Your task to perform on an android device: Add logitech g pro to the cart on target.com Image 0: 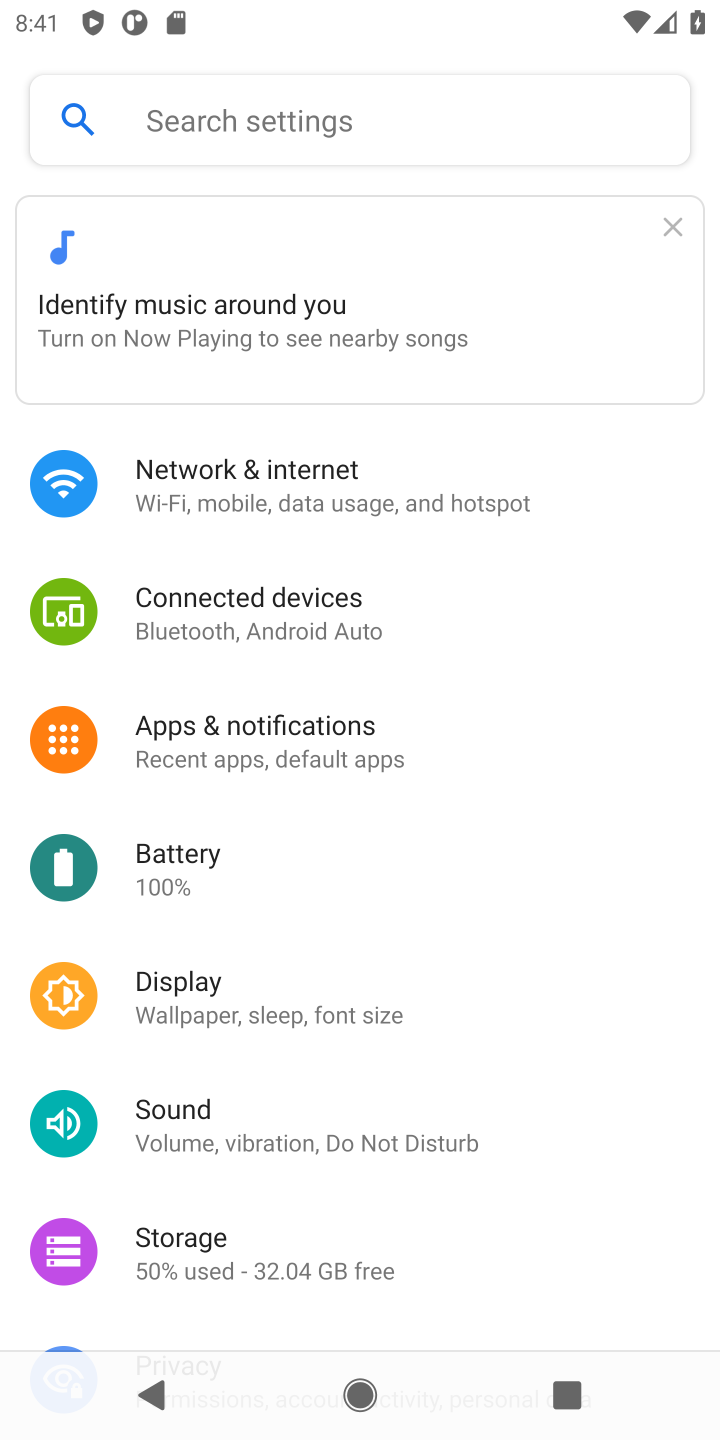
Step 0: press home button
Your task to perform on an android device: Add logitech g pro to the cart on target.com Image 1: 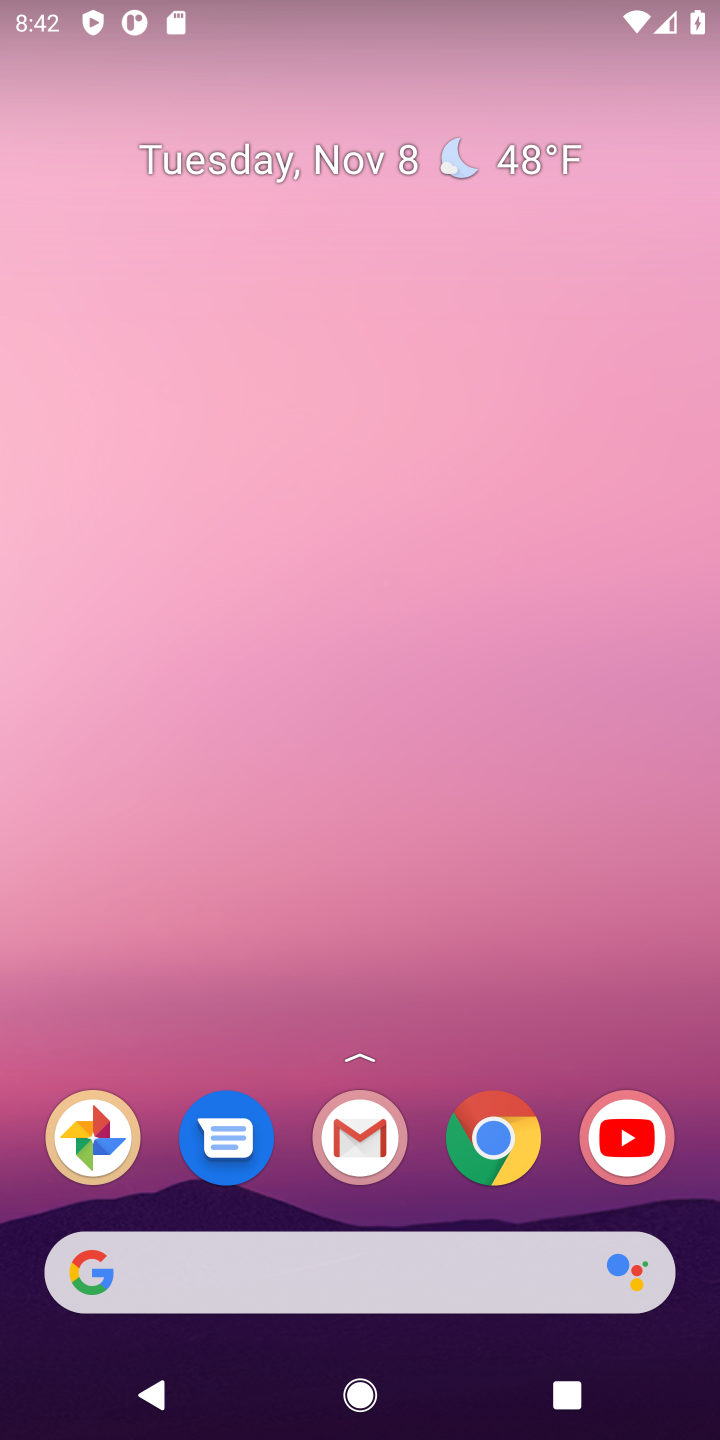
Step 1: click (507, 1127)
Your task to perform on an android device: Add logitech g pro to the cart on target.com Image 2: 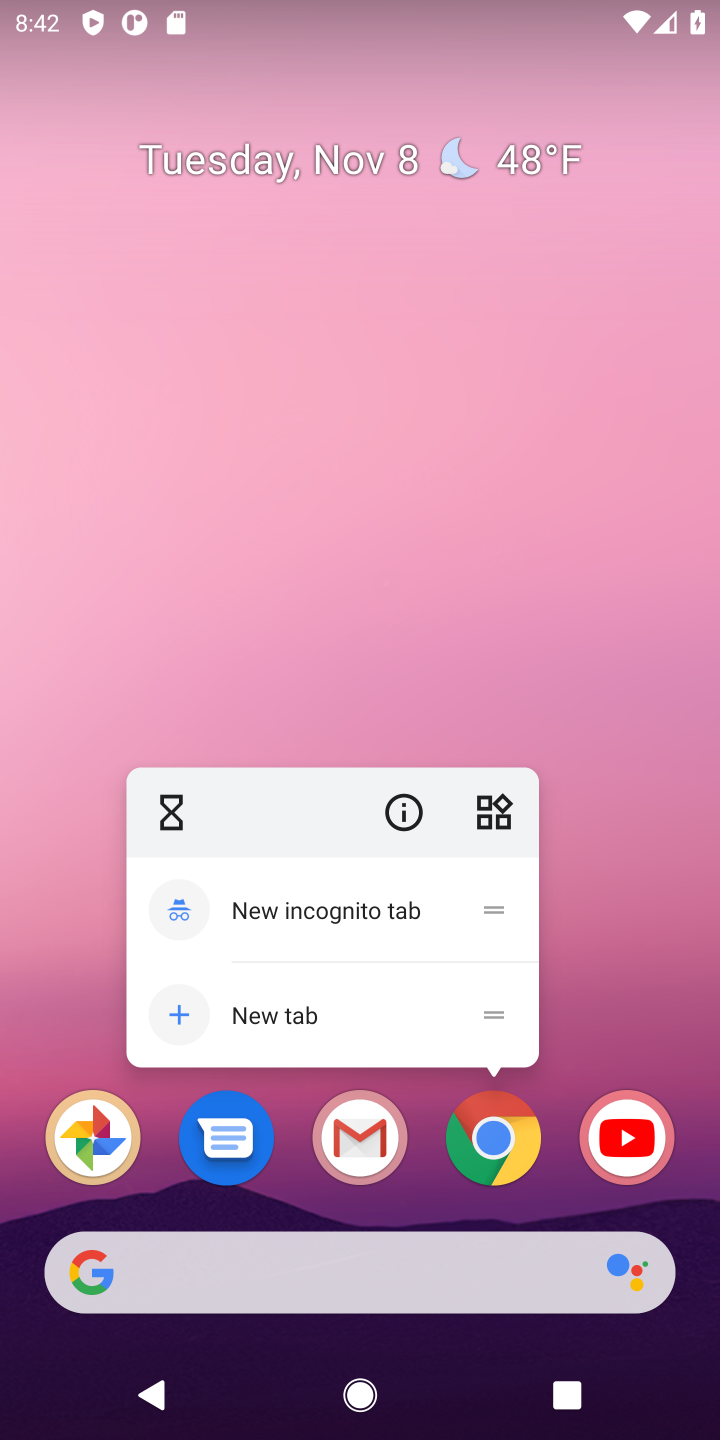
Step 2: click (507, 1128)
Your task to perform on an android device: Add logitech g pro to the cart on target.com Image 3: 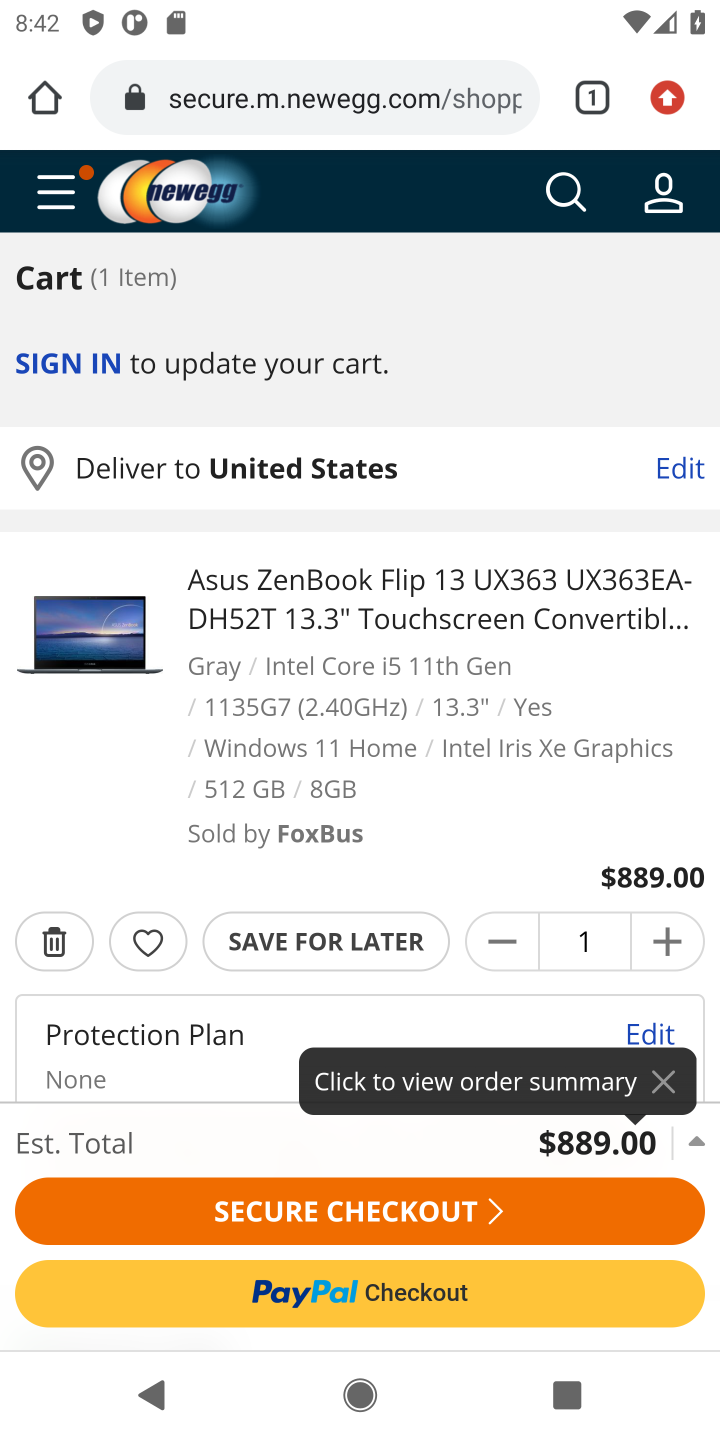
Step 3: click (468, 95)
Your task to perform on an android device: Add logitech g pro to the cart on target.com Image 4: 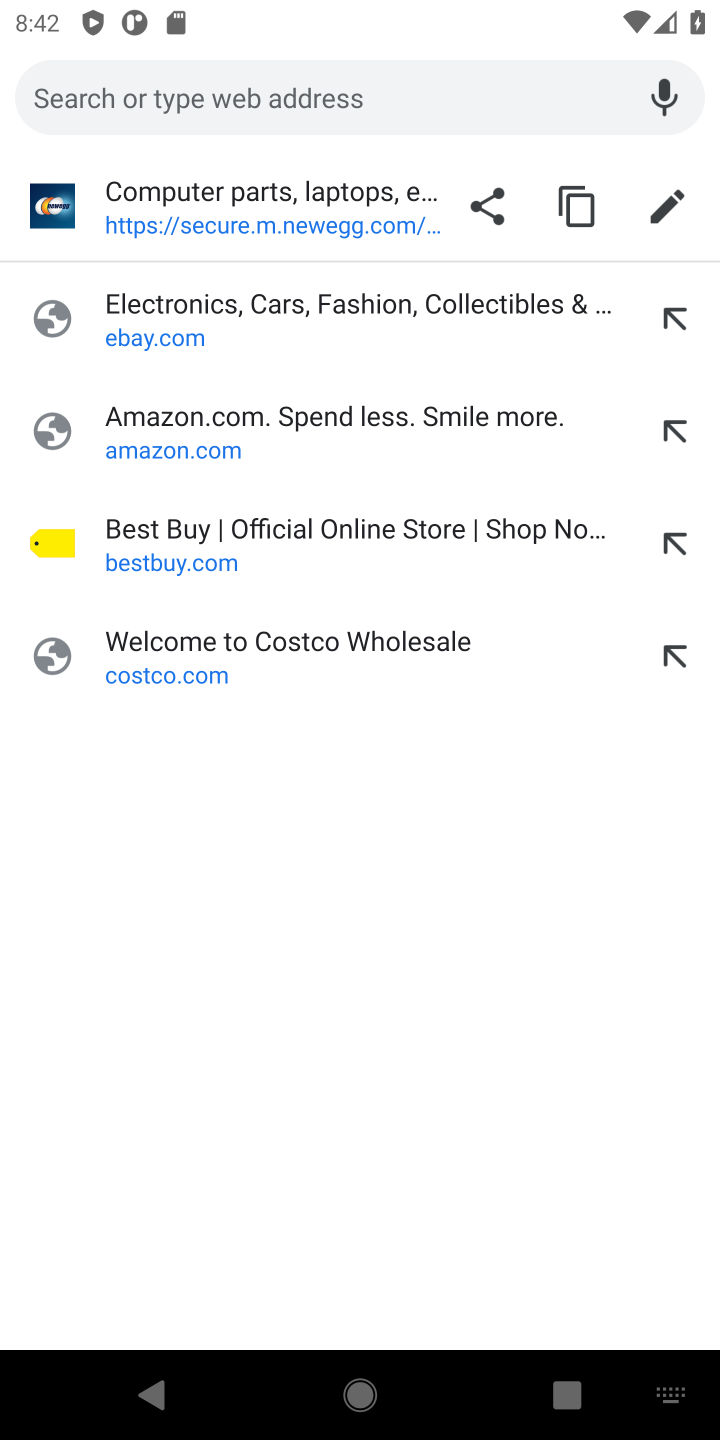
Step 4: type " target.com"
Your task to perform on an android device: Add logitech g pro to the cart on target.com Image 5: 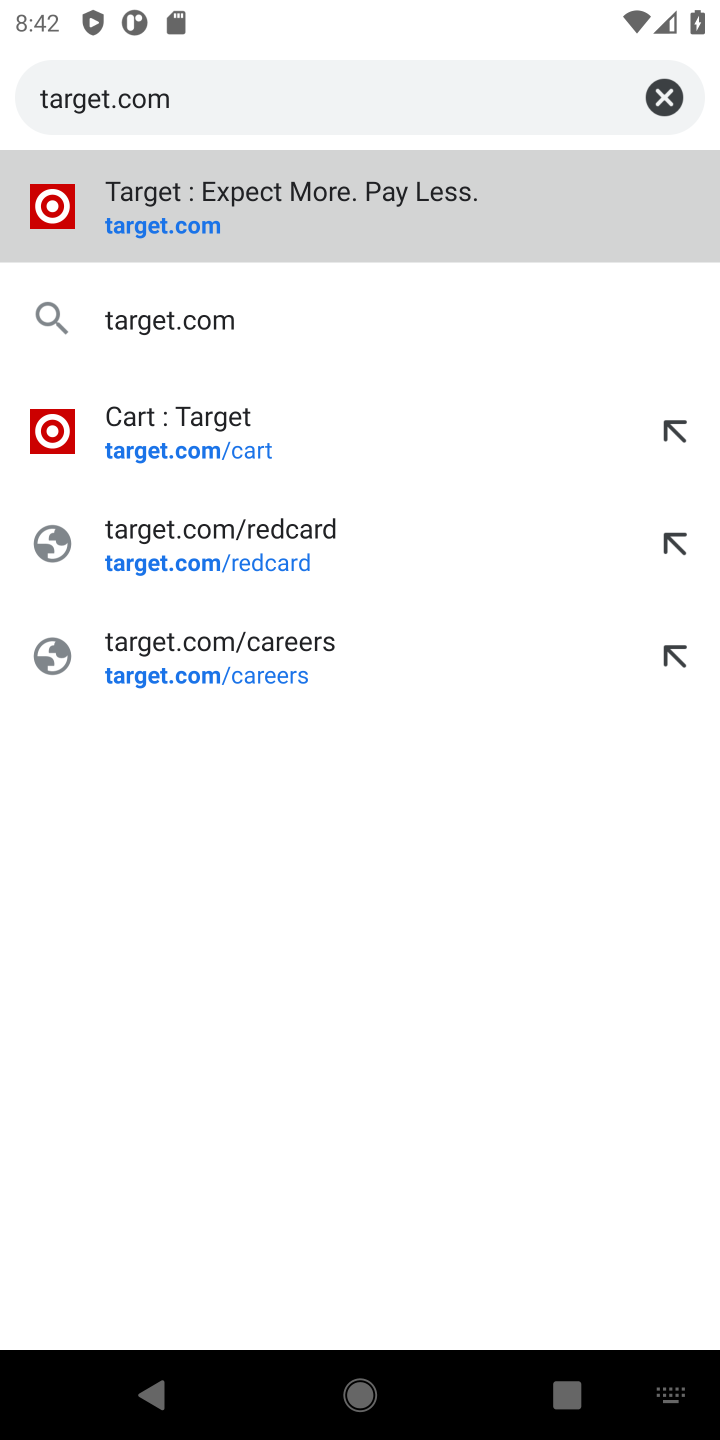
Step 5: press enter
Your task to perform on an android device: Add logitech g pro to the cart on target.com Image 6: 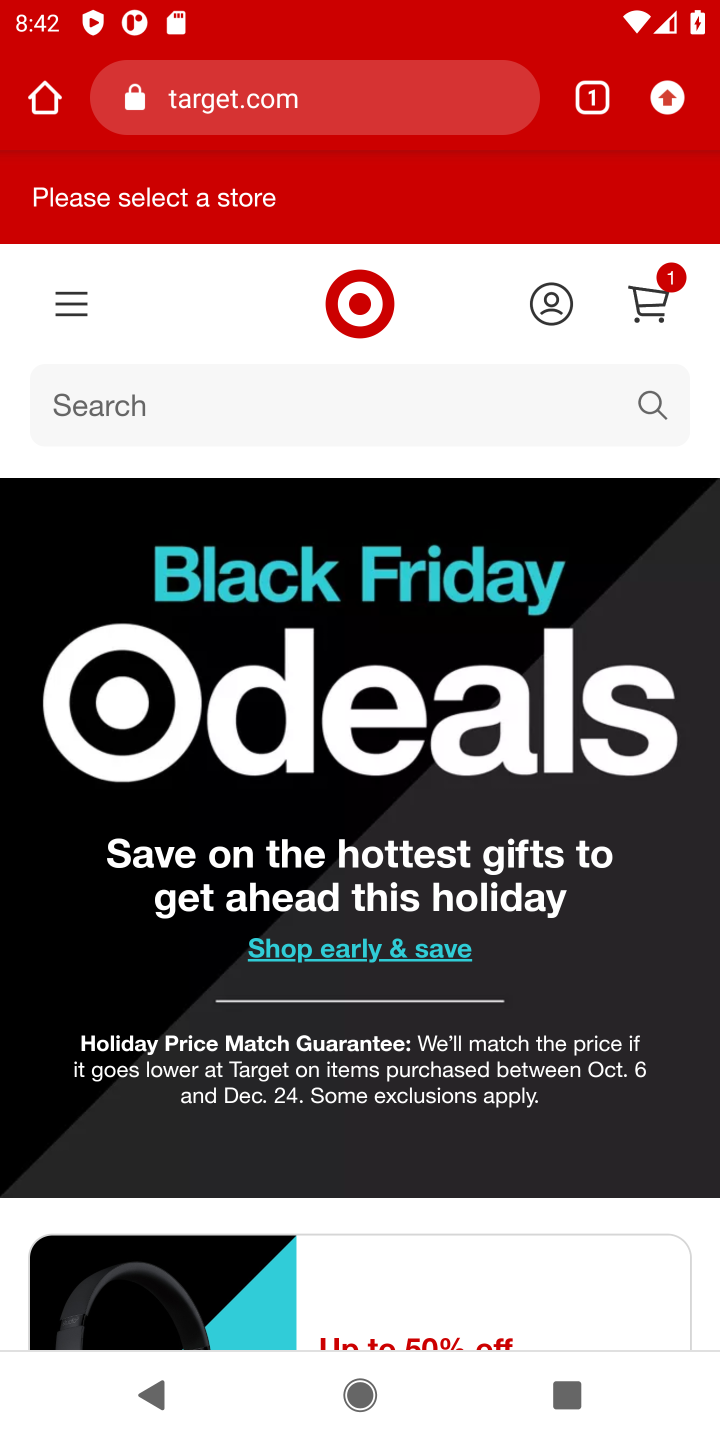
Step 6: click (104, 396)
Your task to perform on an android device: Add logitech g pro to the cart on target.com Image 7: 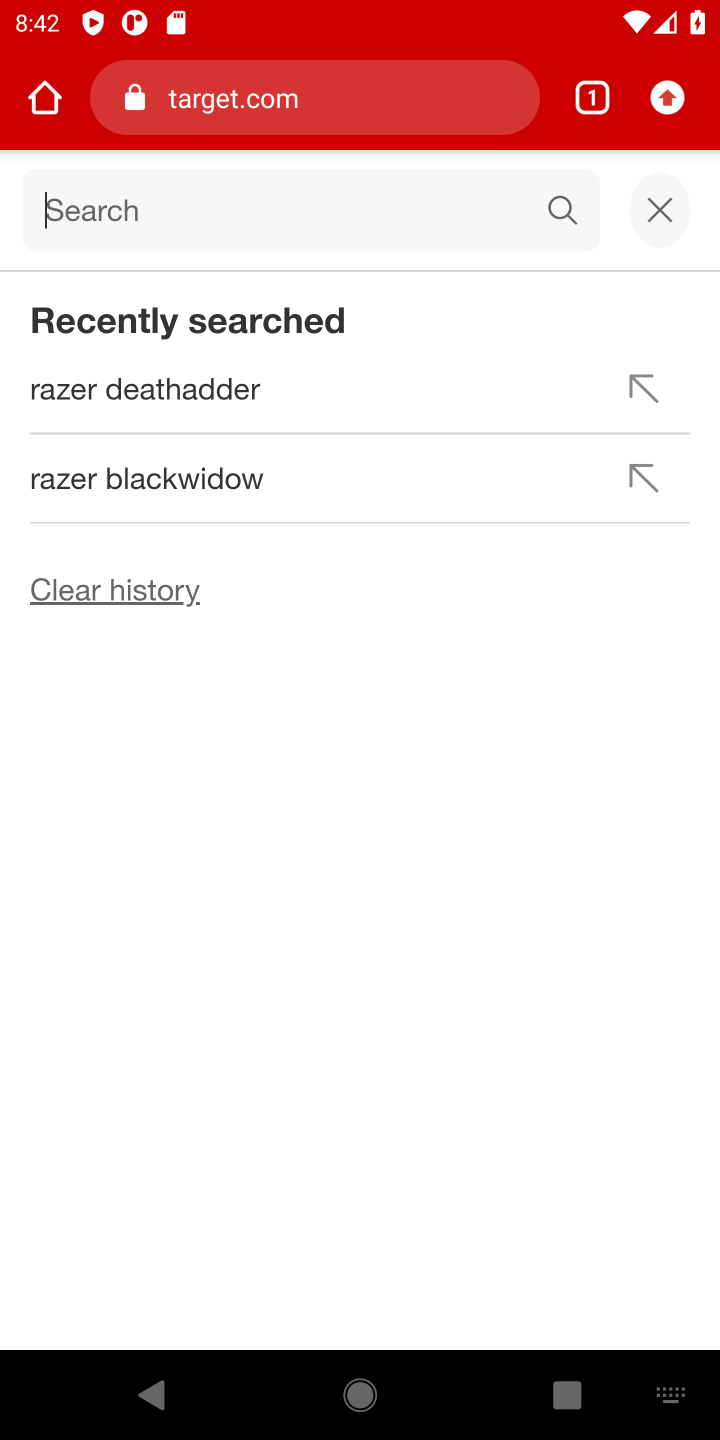
Step 7: type "logitech g pro"
Your task to perform on an android device: Add logitech g pro to the cart on target.com Image 8: 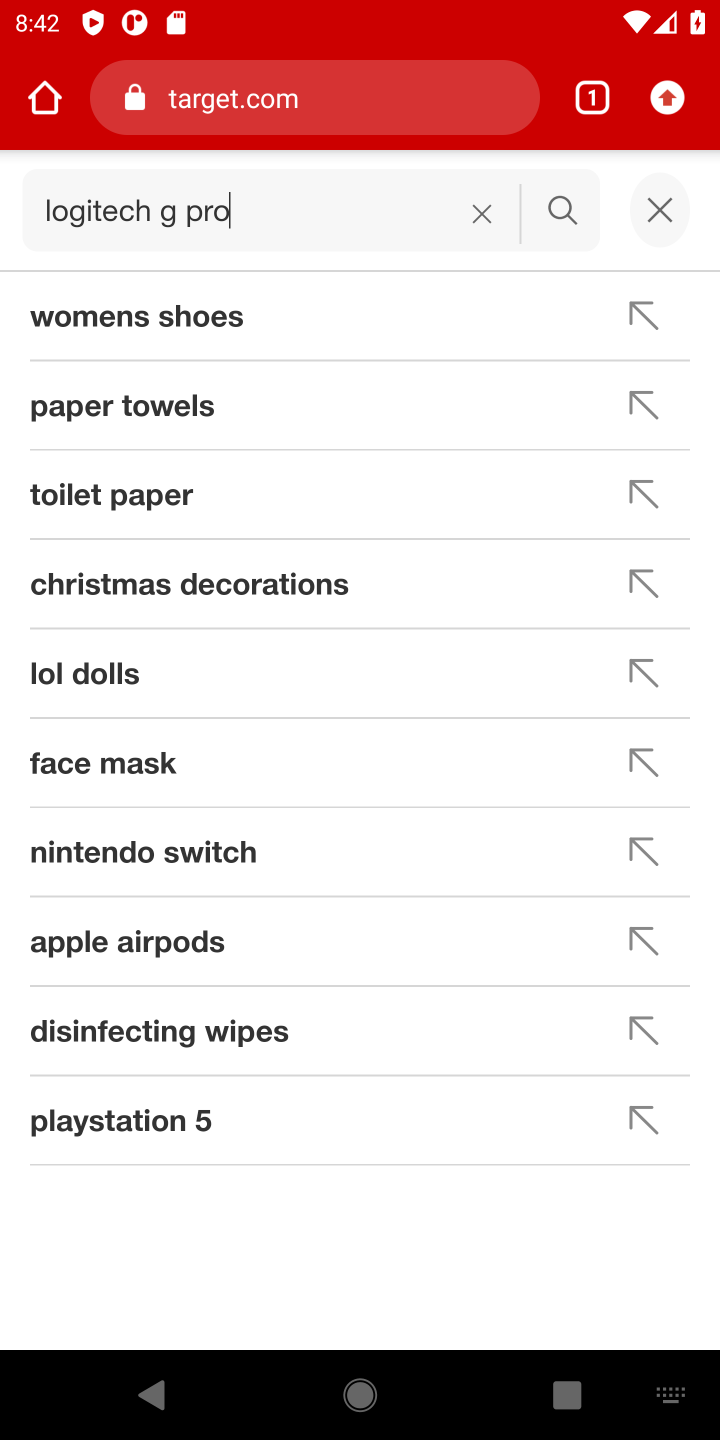
Step 8: press enter
Your task to perform on an android device: Add logitech g pro to the cart on target.com Image 9: 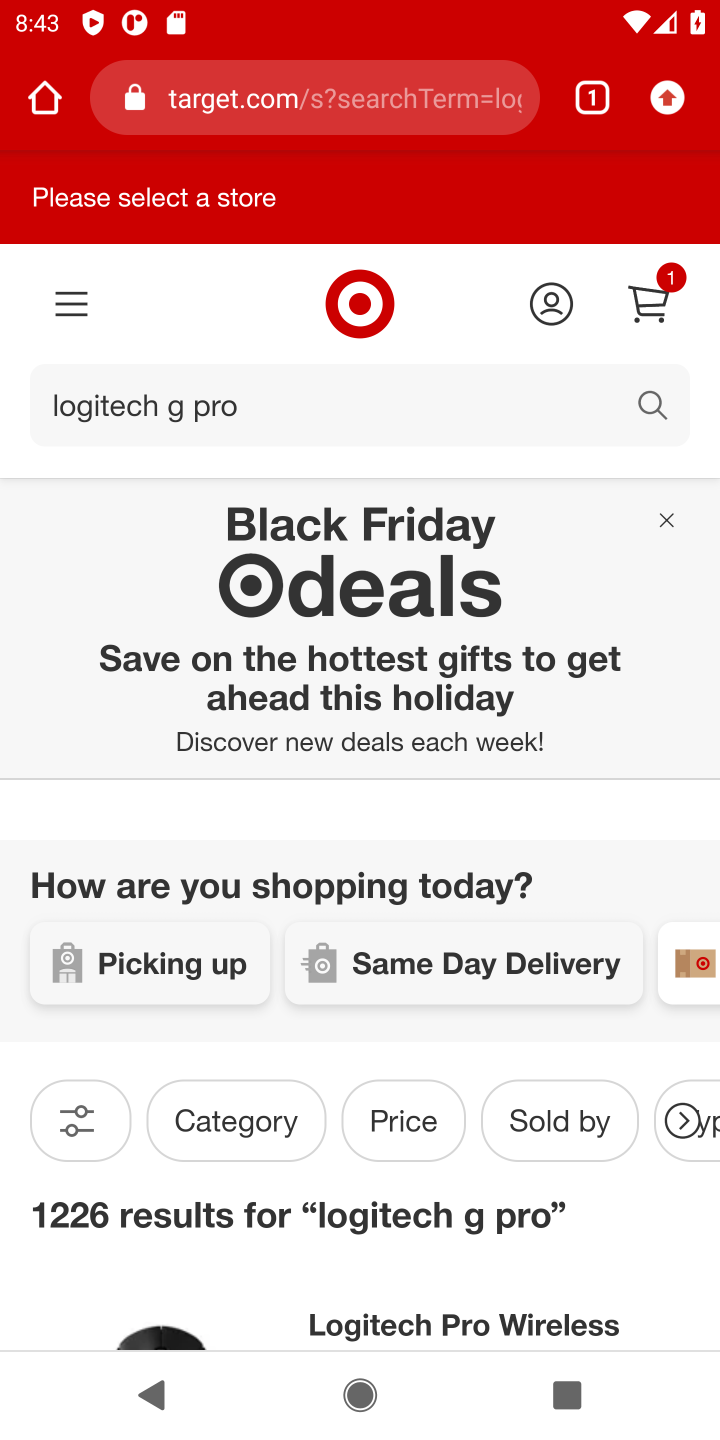
Step 9: task complete